Your task to perform on an android device: toggle javascript in the chrome app Image 0: 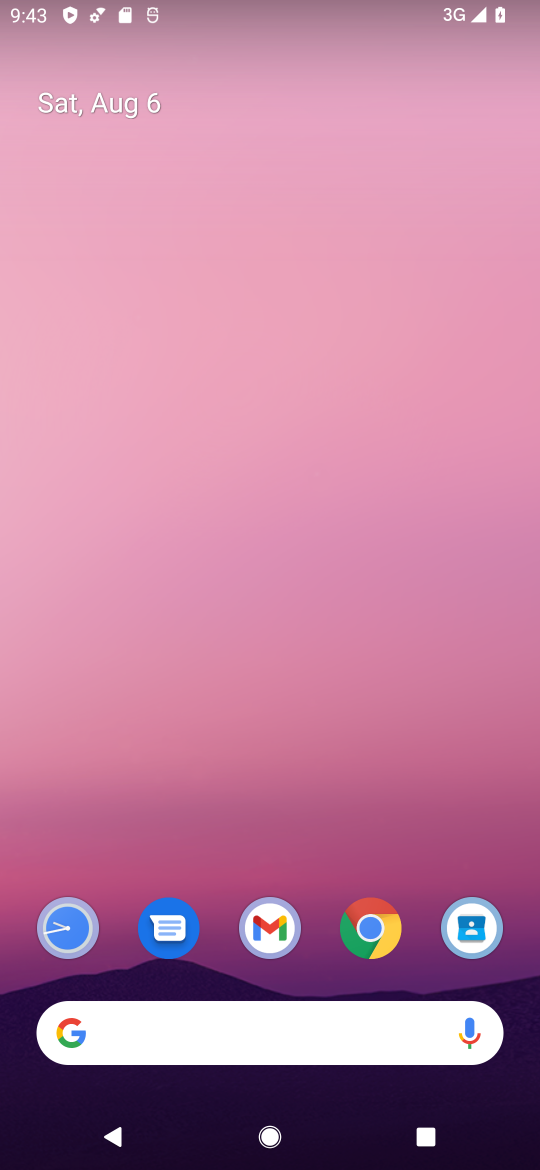
Step 0: click (370, 929)
Your task to perform on an android device: toggle javascript in the chrome app Image 1: 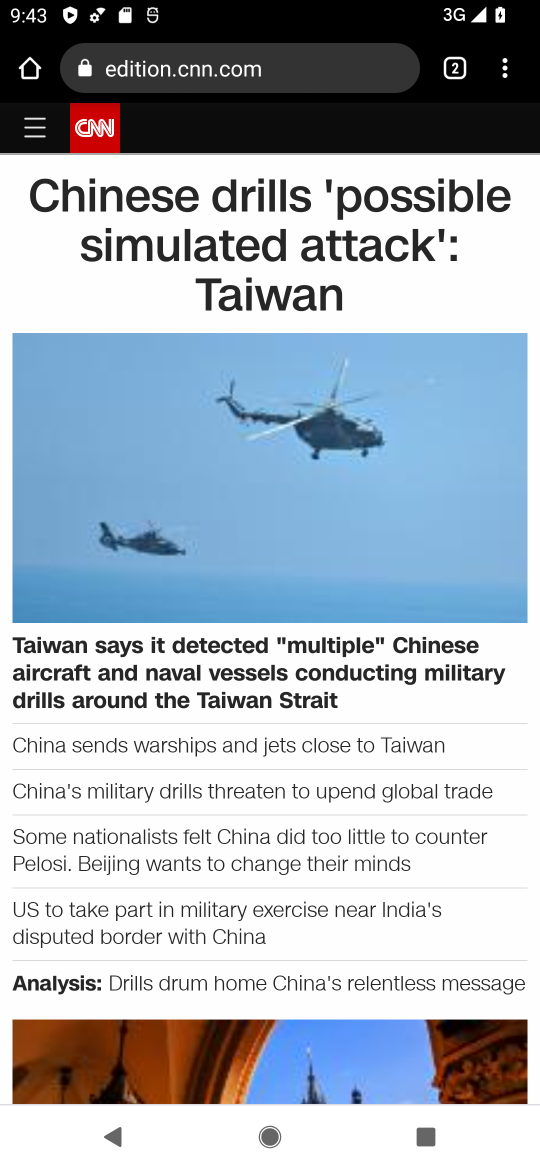
Step 1: click (497, 72)
Your task to perform on an android device: toggle javascript in the chrome app Image 2: 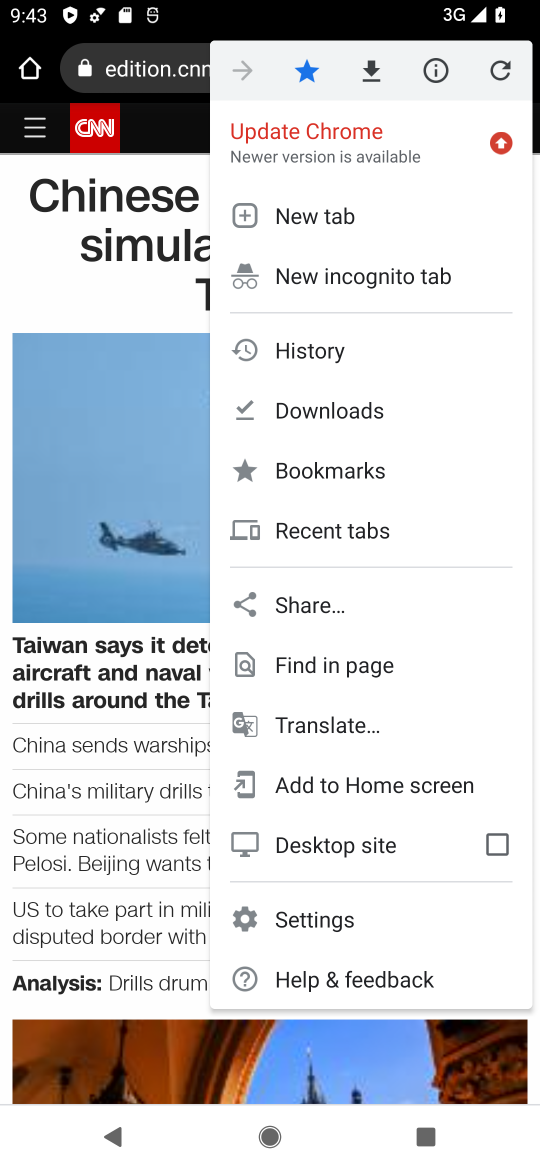
Step 2: click (333, 914)
Your task to perform on an android device: toggle javascript in the chrome app Image 3: 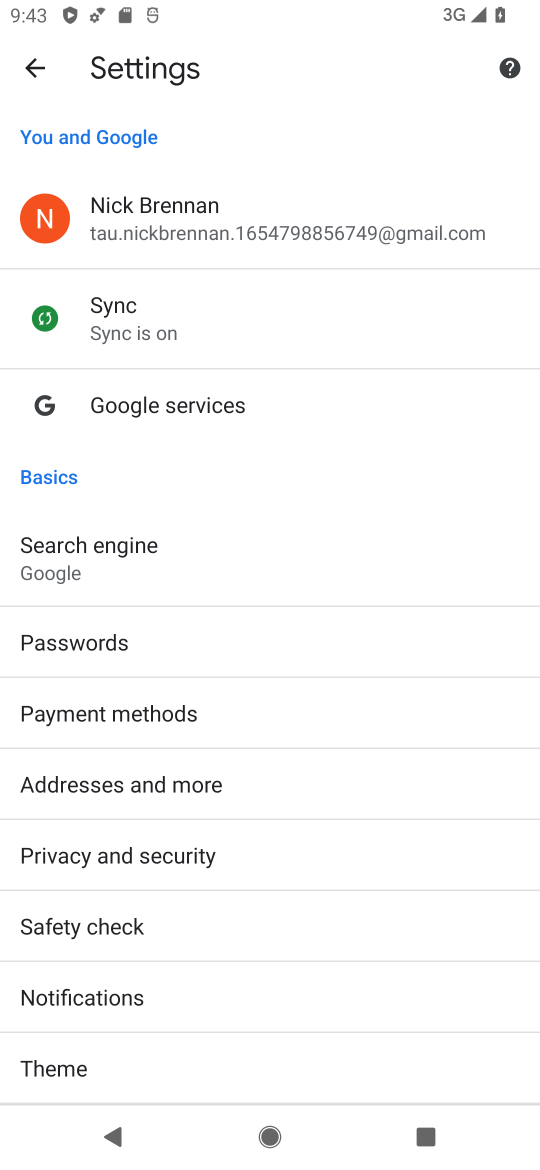
Step 3: drag from (274, 947) to (274, 251)
Your task to perform on an android device: toggle javascript in the chrome app Image 4: 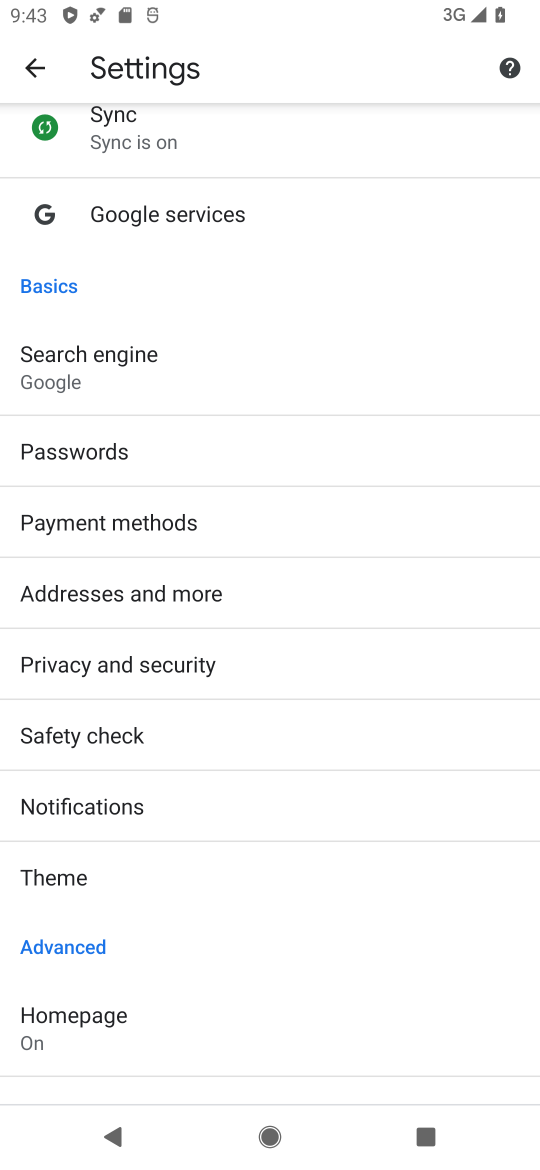
Step 4: drag from (249, 961) to (225, 277)
Your task to perform on an android device: toggle javascript in the chrome app Image 5: 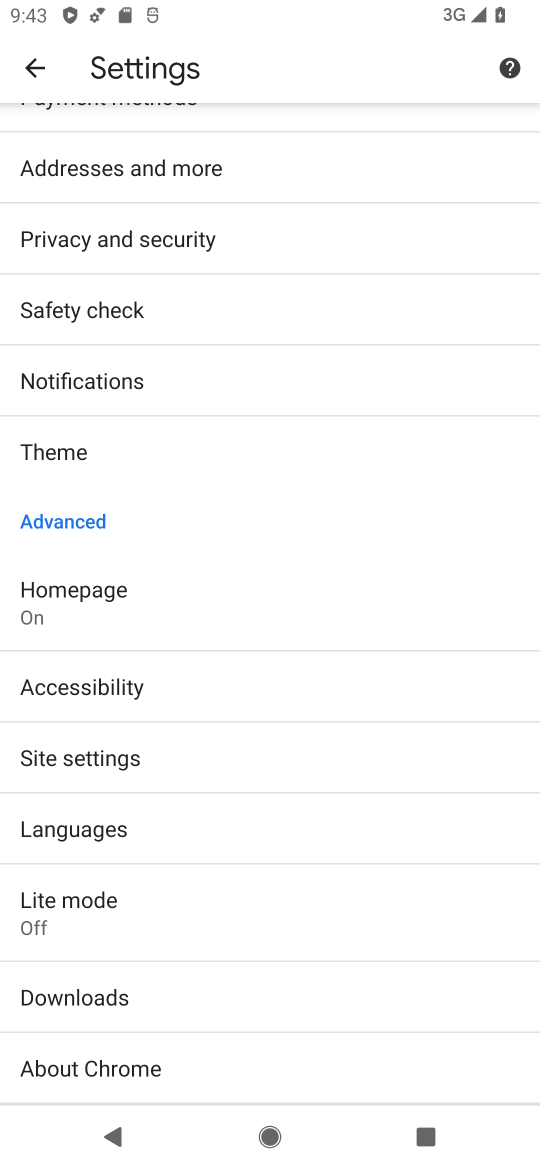
Step 5: click (72, 755)
Your task to perform on an android device: toggle javascript in the chrome app Image 6: 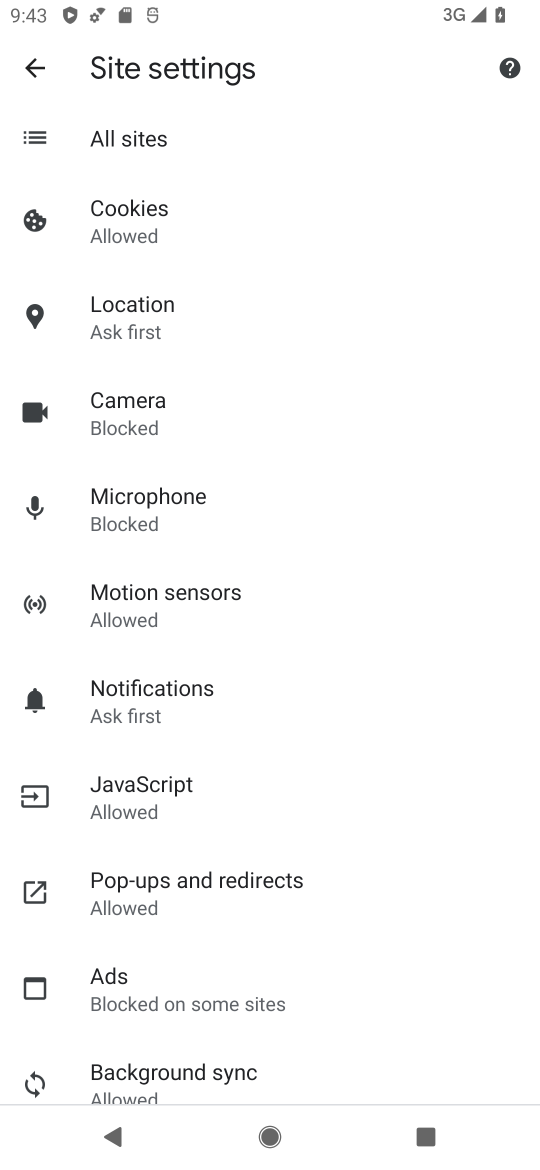
Step 6: click (147, 780)
Your task to perform on an android device: toggle javascript in the chrome app Image 7: 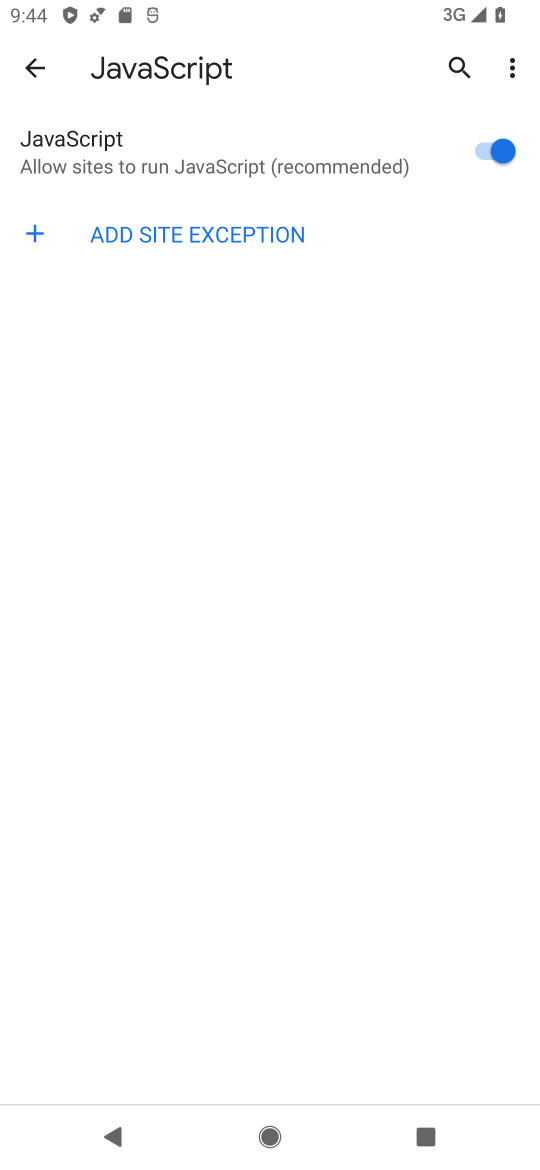
Step 7: click (502, 154)
Your task to perform on an android device: toggle javascript in the chrome app Image 8: 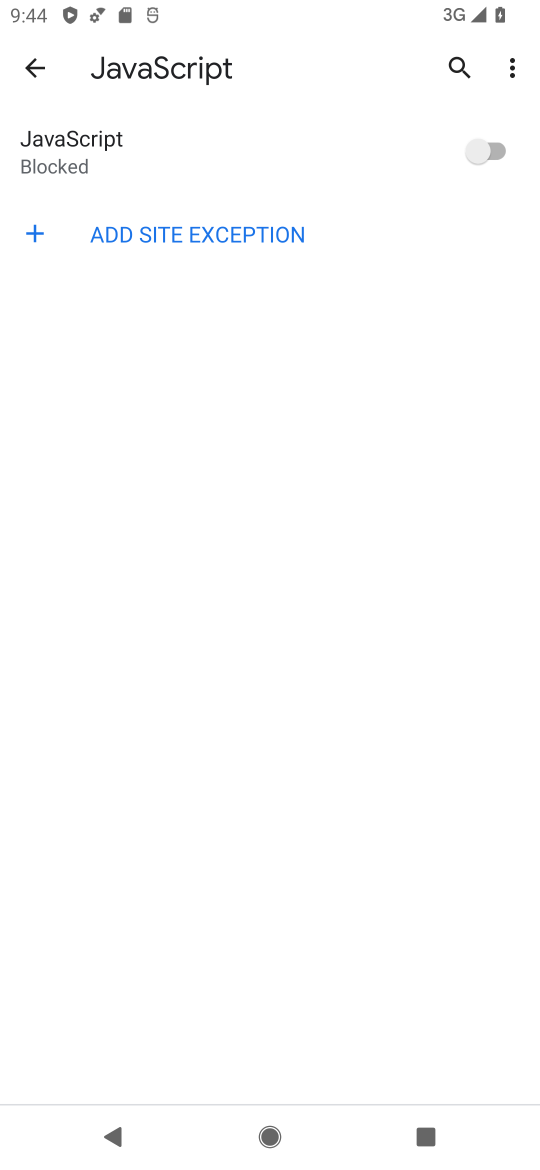
Step 8: task complete